Your task to perform on an android device: empty trash in the gmail app Image 0: 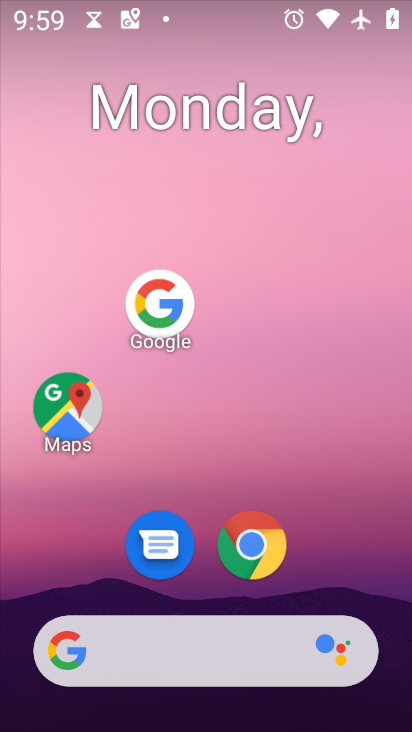
Step 0: press home button
Your task to perform on an android device: empty trash in the gmail app Image 1: 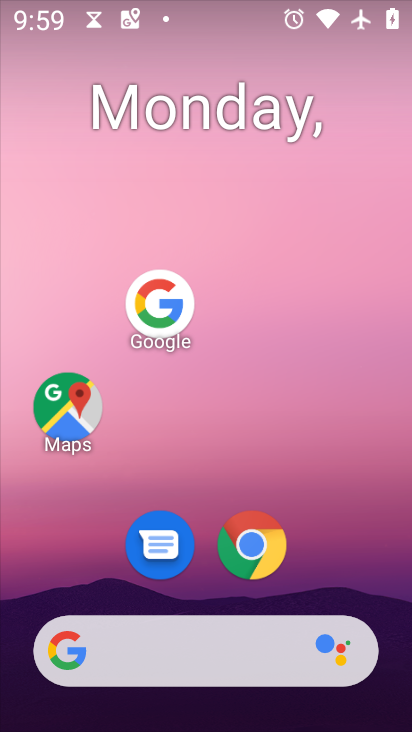
Step 1: drag from (166, 668) to (312, 137)
Your task to perform on an android device: empty trash in the gmail app Image 2: 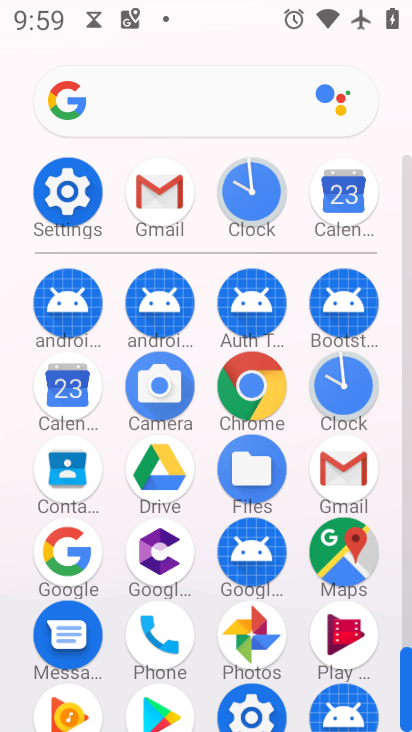
Step 2: click (343, 470)
Your task to perform on an android device: empty trash in the gmail app Image 3: 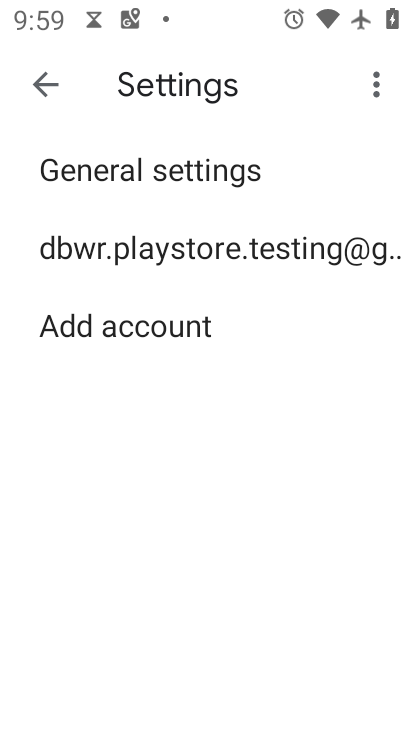
Step 3: click (40, 88)
Your task to perform on an android device: empty trash in the gmail app Image 4: 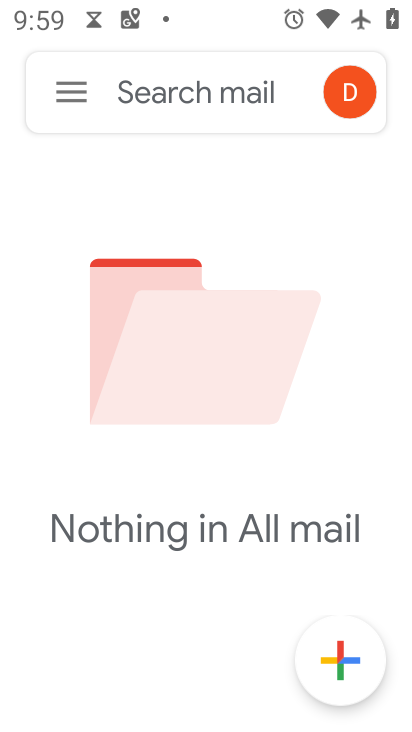
Step 4: click (64, 90)
Your task to perform on an android device: empty trash in the gmail app Image 5: 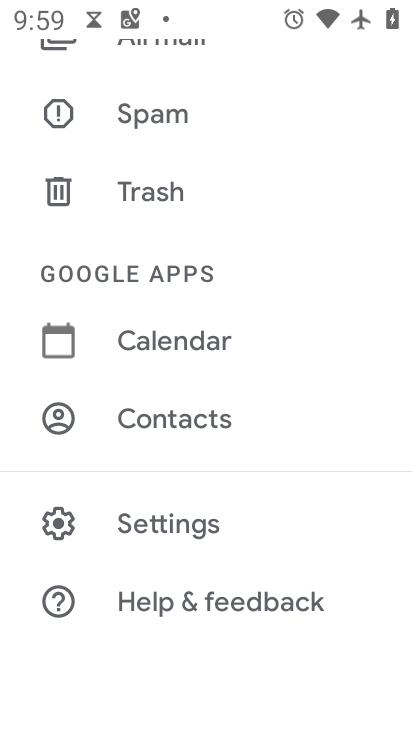
Step 5: click (168, 189)
Your task to perform on an android device: empty trash in the gmail app Image 6: 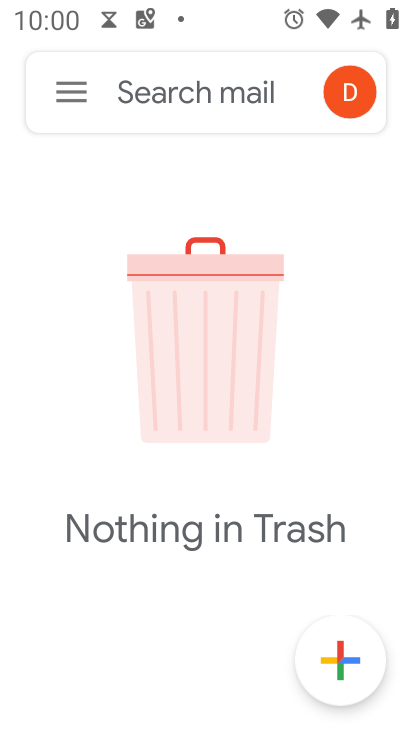
Step 6: task complete